Your task to perform on an android device: change your default location settings in chrome Image 0: 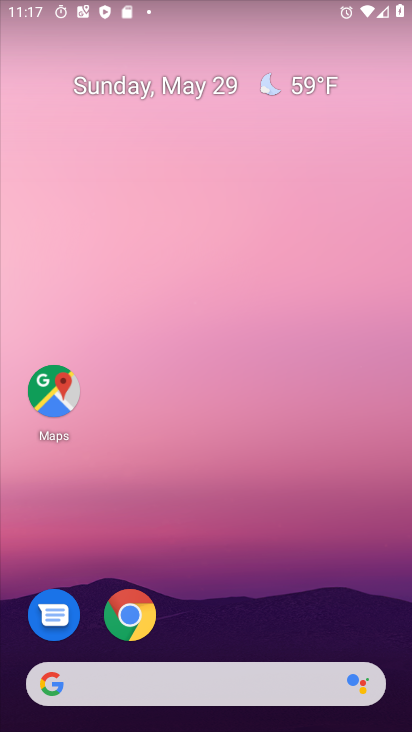
Step 0: drag from (250, 599) to (335, 114)
Your task to perform on an android device: change your default location settings in chrome Image 1: 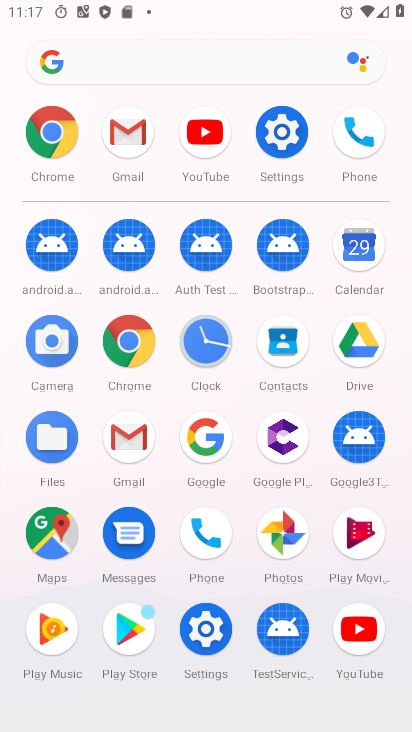
Step 1: click (53, 134)
Your task to perform on an android device: change your default location settings in chrome Image 2: 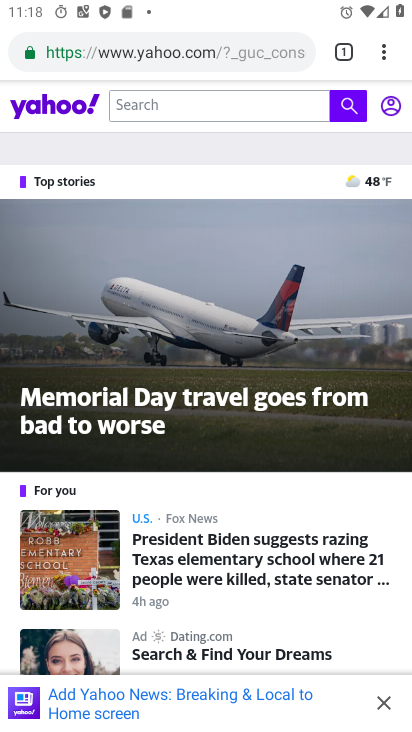
Step 2: click (377, 49)
Your task to perform on an android device: change your default location settings in chrome Image 3: 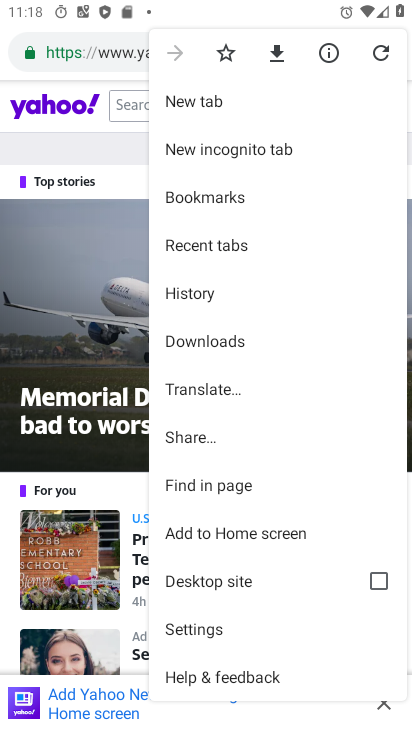
Step 3: drag from (232, 656) to (232, 271)
Your task to perform on an android device: change your default location settings in chrome Image 4: 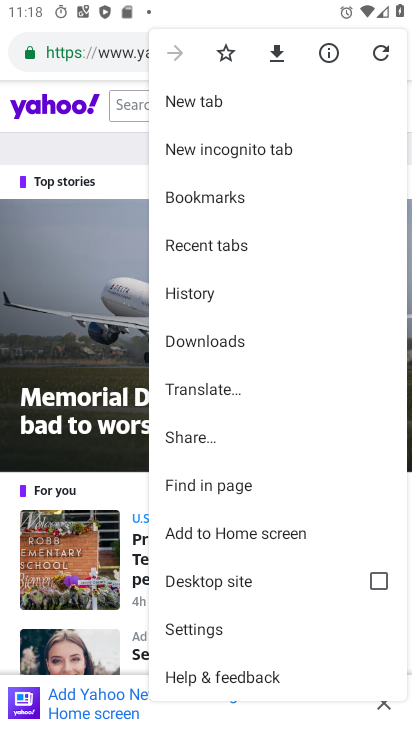
Step 4: click (253, 630)
Your task to perform on an android device: change your default location settings in chrome Image 5: 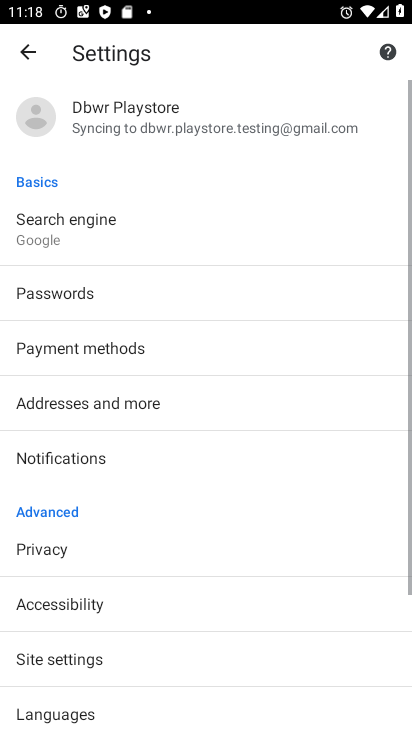
Step 5: drag from (244, 608) to (199, 205)
Your task to perform on an android device: change your default location settings in chrome Image 6: 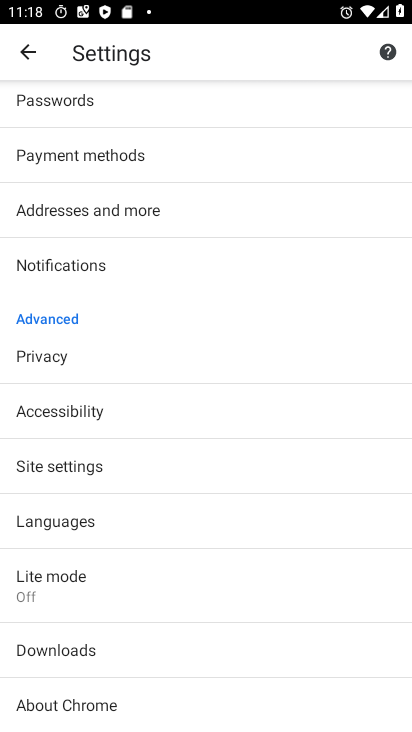
Step 6: click (76, 467)
Your task to perform on an android device: change your default location settings in chrome Image 7: 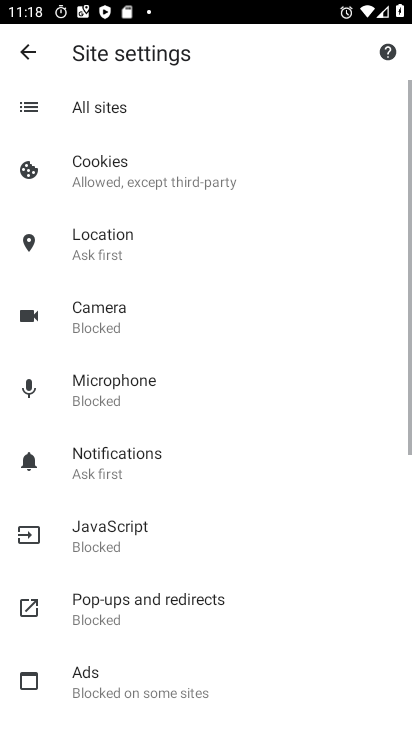
Step 7: click (119, 261)
Your task to perform on an android device: change your default location settings in chrome Image 8: 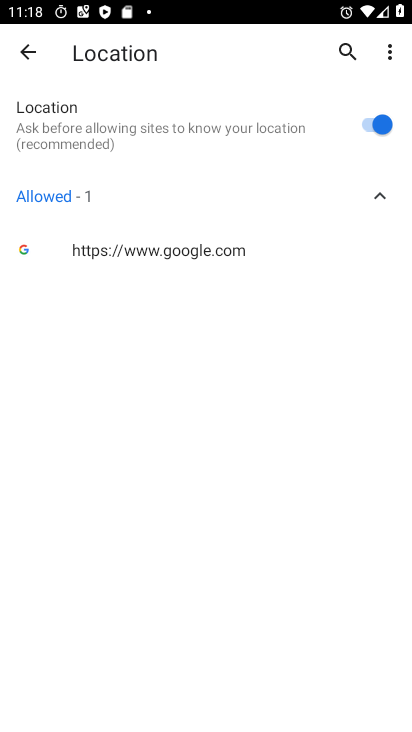
Step 8: click (390, 121)
Your task to perform on an android device: change your default location settings in chrome Image 9: 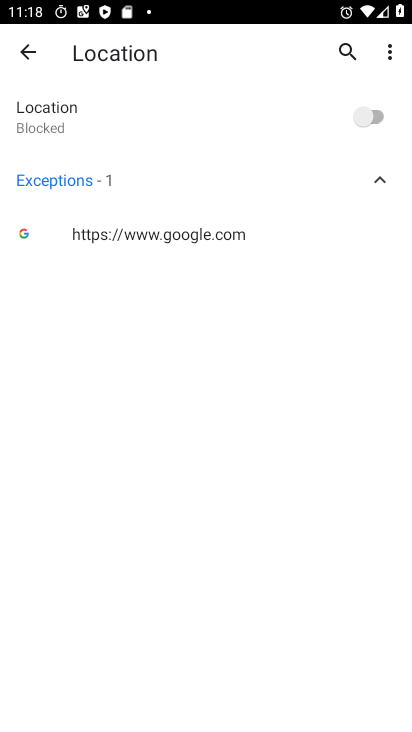
Step 9: task complete